Your task to perform on an android device: Open display settings Image 0: 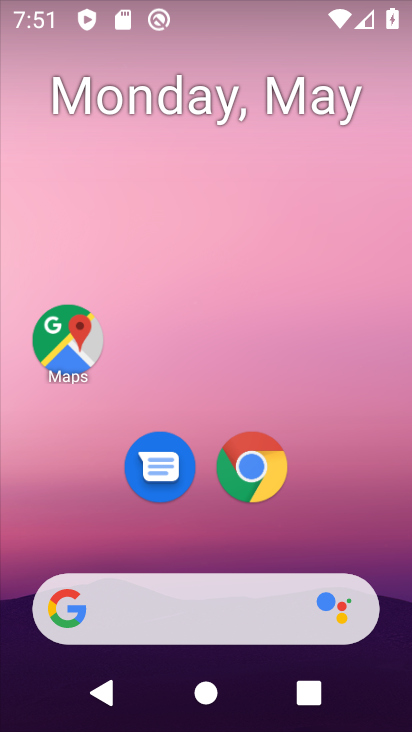
Step 0: drag from (326, 539) to (207, 48)
Your task to perform on an android device: Open display settings Image 1: 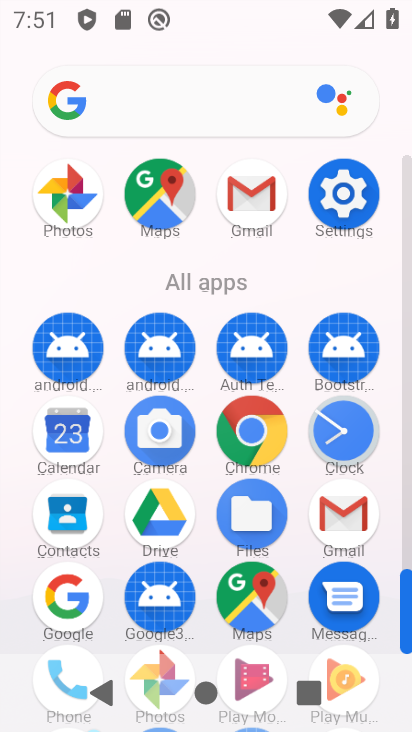
Step 1: click (348, 194)
Your task to perform on an android device: Open display settings Image 2: 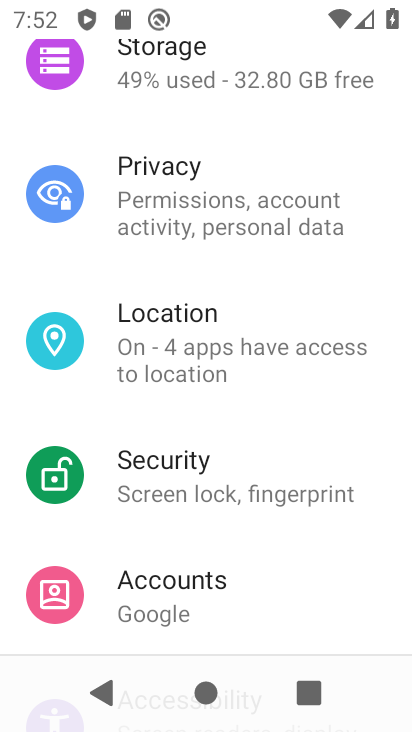
Step 2: drag from (256, 180) to (254, 649)
Your task to perform on an android device: Open display settings Image 3: 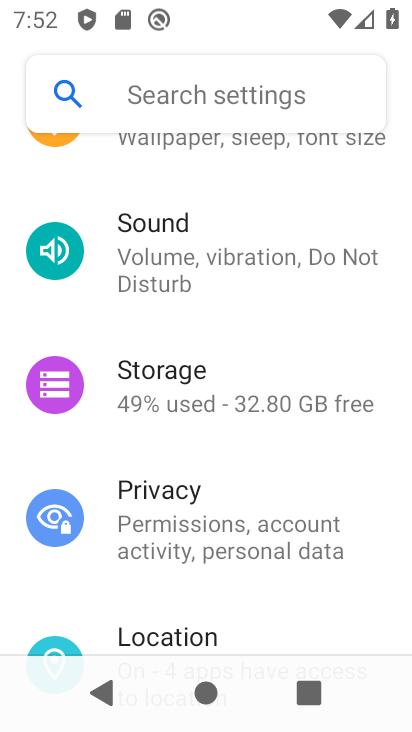
Step 3: drag from (253, 297) to (237, 541)
Your task to perform on an android device: Open display settings Image 4: 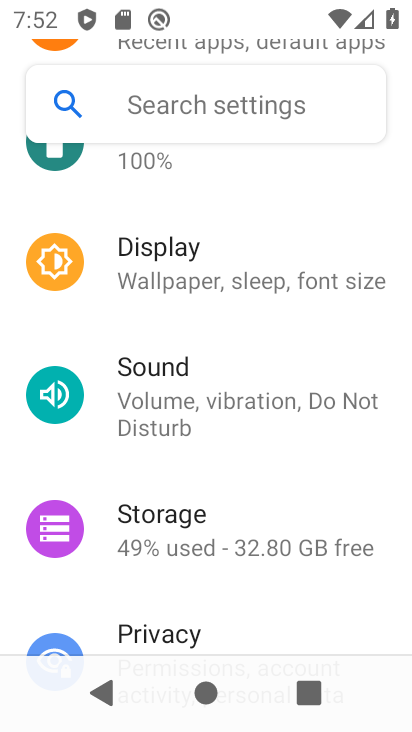
Step 4: click (229, 286)
Your task to perform on an android device: Open display settings Image 5: 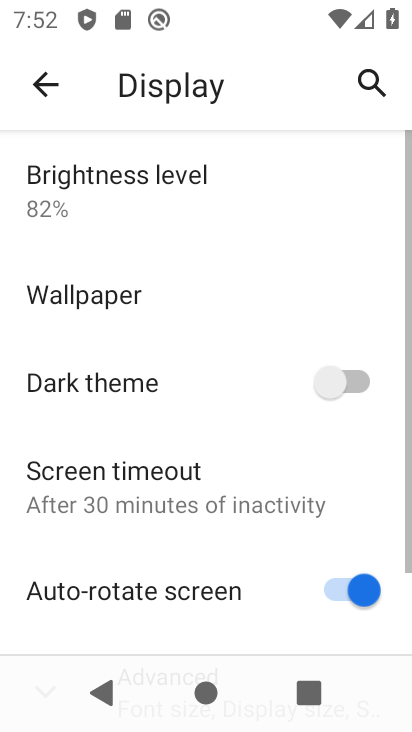
Step 5: task complete